Your task to perform on an android device: Add "lenovo thinkpad" to the cart on amazon, then select checkout. Image 0: 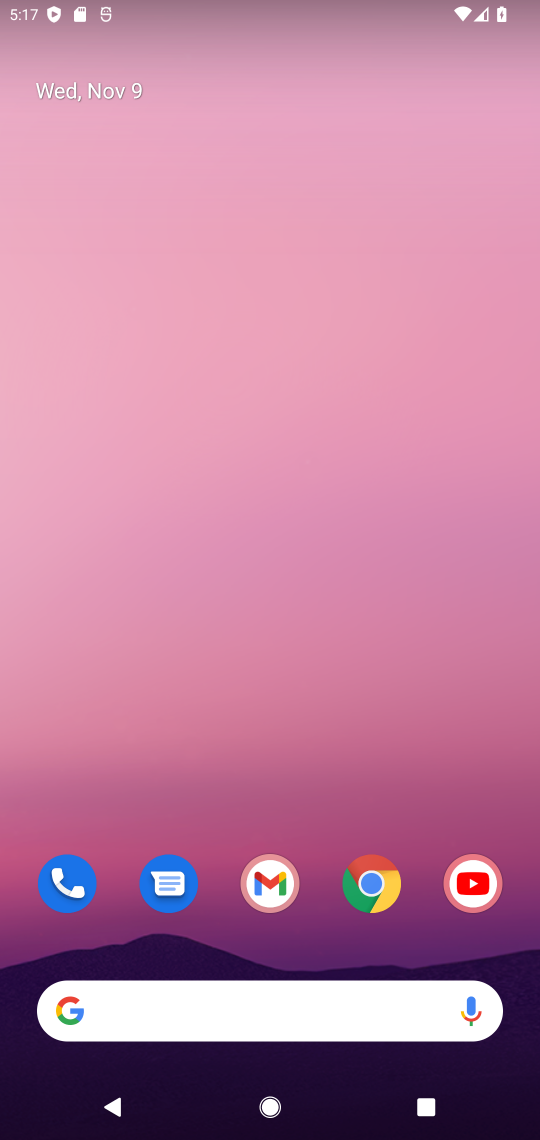
Step 0: click (370, 871)
Your task to perform on an android device: Add "lenovo thinkpad" to the cart on amazon, then select checkout. Image 1: 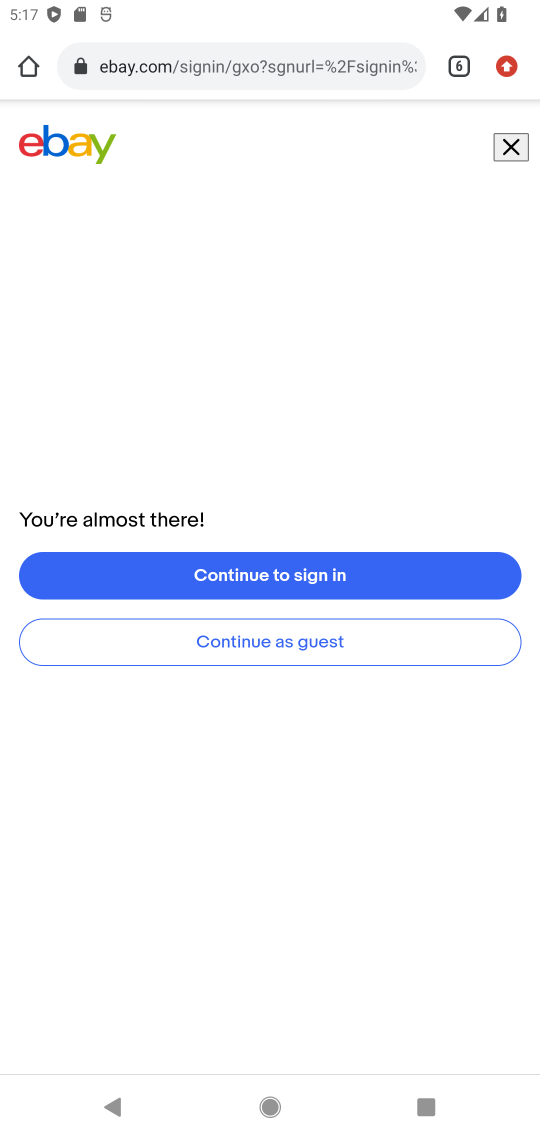
Step 1: click (456, 66)
Your task to perform on an android device: Add "lenovo thinkpad" to the cart on amazon, then select checkout. Image 2: 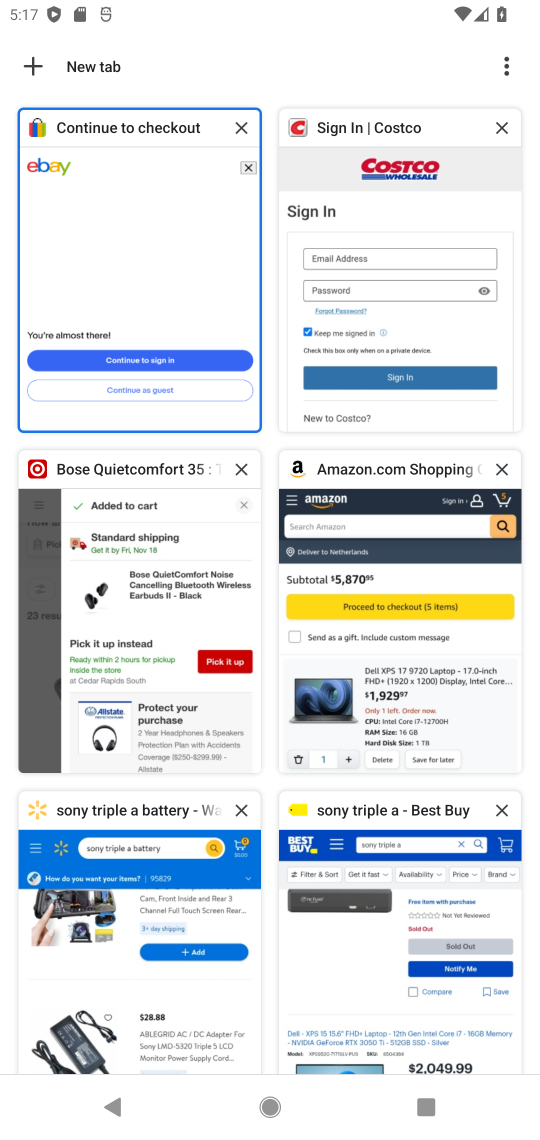
Step 2: click (420, 575)
Your task to perform on an android device: Add "lenovo thinkpad" to the cart on amazon, then select checkout. Image 3: 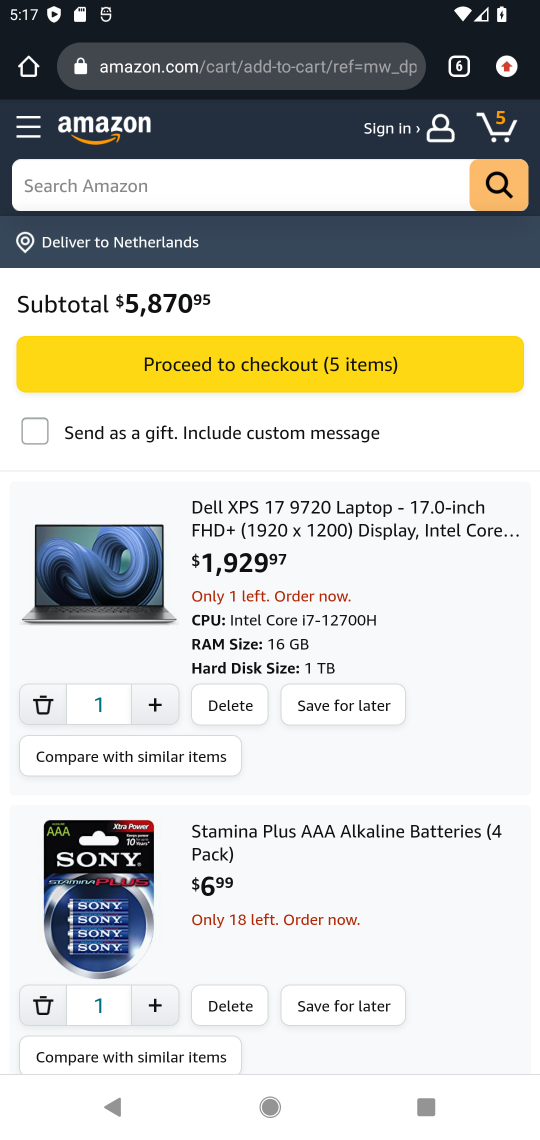
Step 3: click (120, 173)
Your task to perform on an android device: Add "lenovo thinkpad" to the cart on amazon, then select checkout. Image 4: 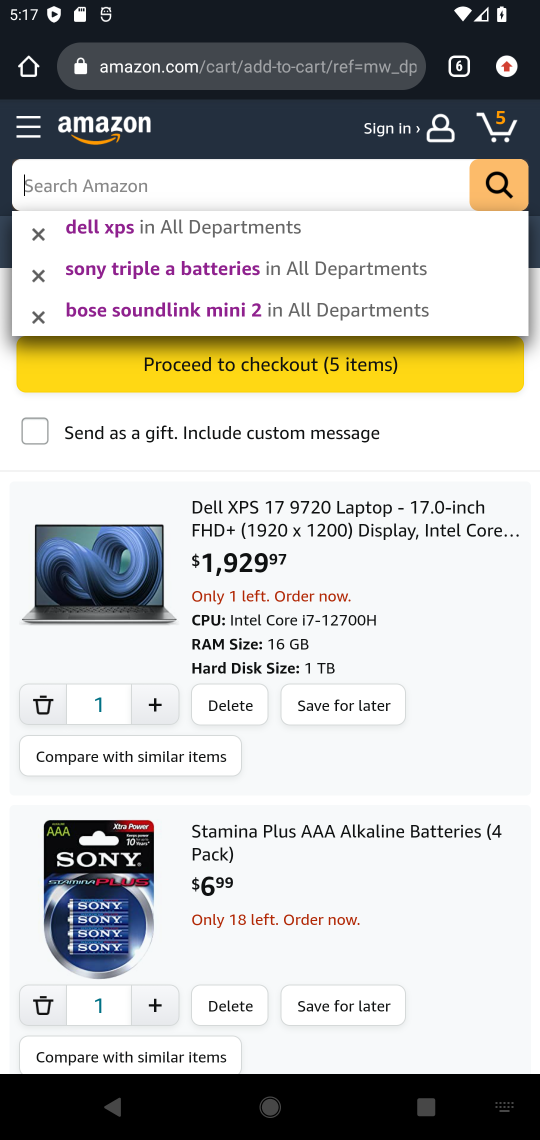
Step 4: type "lenovo thinkpad"
Your task to perform on an android device: Add "lenovo thinkpad" to the cart on amazon, then select checkout. Image 5: 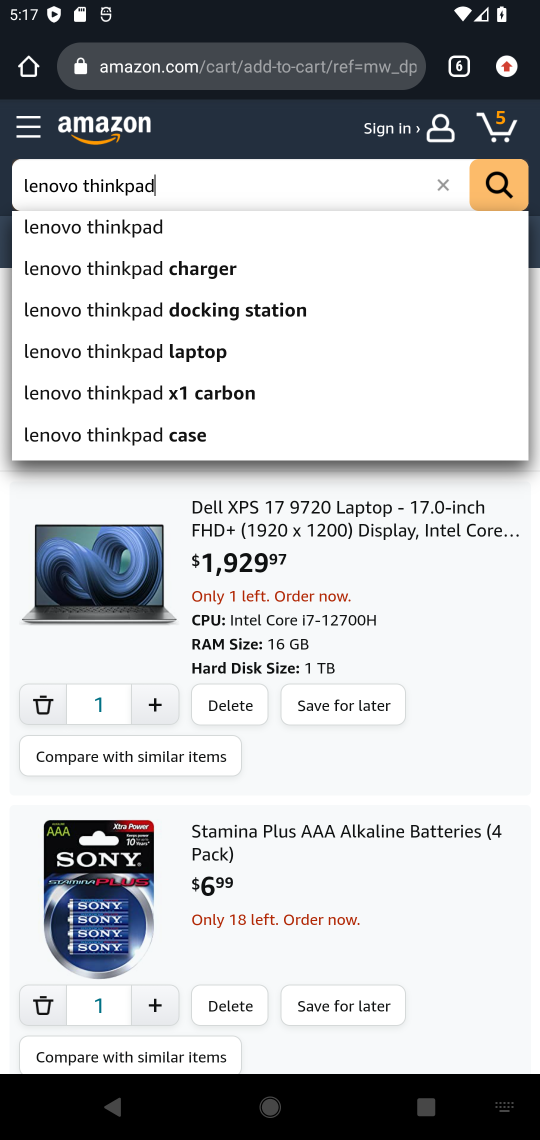
Step 5: click (110, 224)
Your task to perform on an android device: Add "lenovo thinkpad" to the cart on amazon, then select checkout. Image 6: 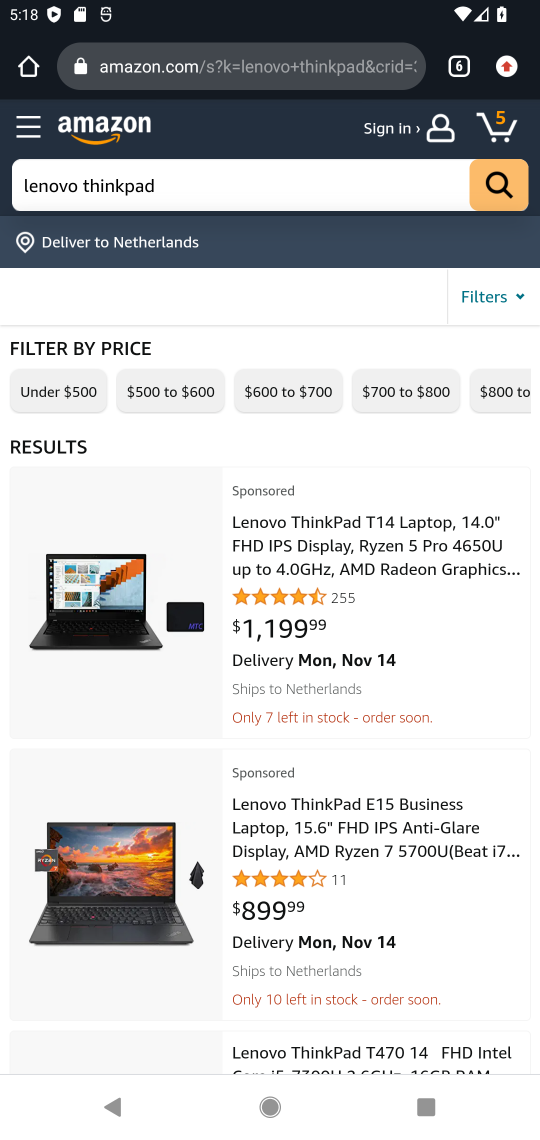
Step 6: click (245, 525)
Your task to perform on an android device: Add "lenovo thinkpad" to the cart on amazon, then select checkout. Image 7: 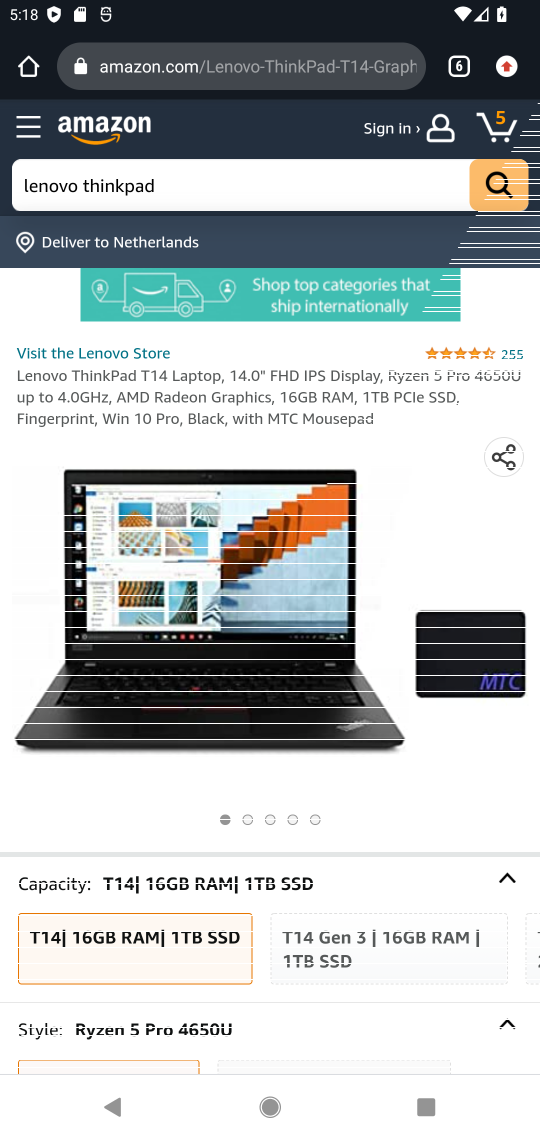
Step 7: drag from (196, 32) to (417, 25)
Your task to perform on an android device: Add "lenovo thinkpad" to the cart on amazon, then select checkout. Image 8: 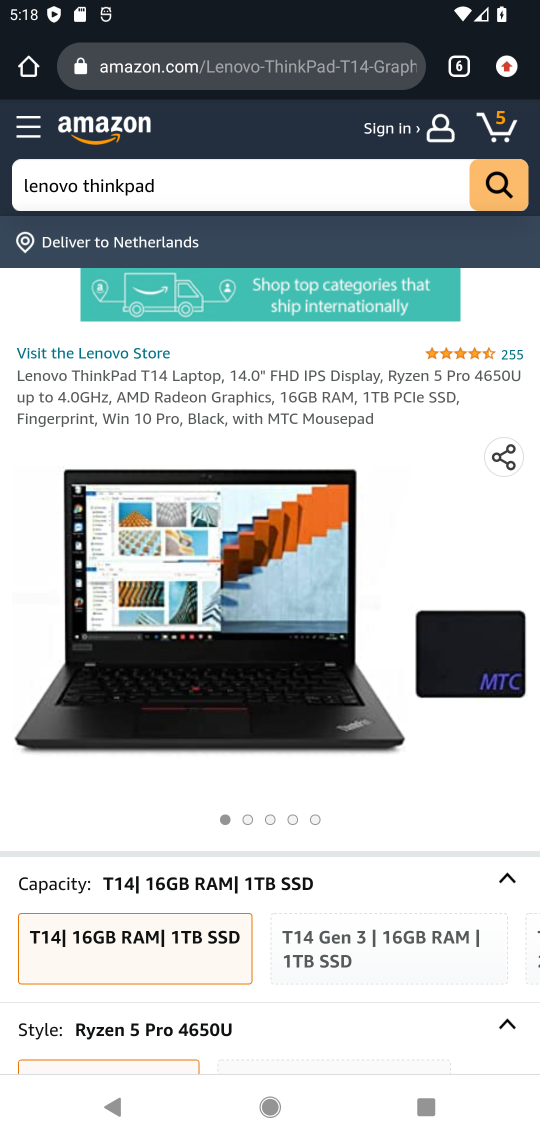
Step 8: drag from (374, 1000) to (485, 239)
Your task to perform on an android device: Add "lenovo thinkpad" to the cart on amazon, then select checkout. Image 9: 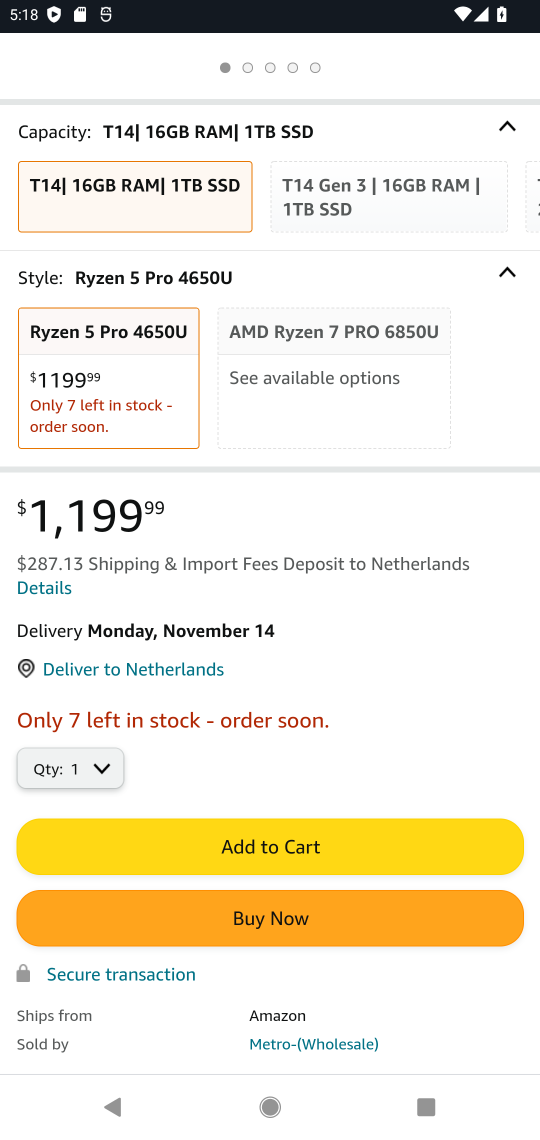
Step 9: click (280, 988)
Your task to perform on an android device: Add "lenovo thinkpad" to the cart on amazon, then select checkout. Image 10: 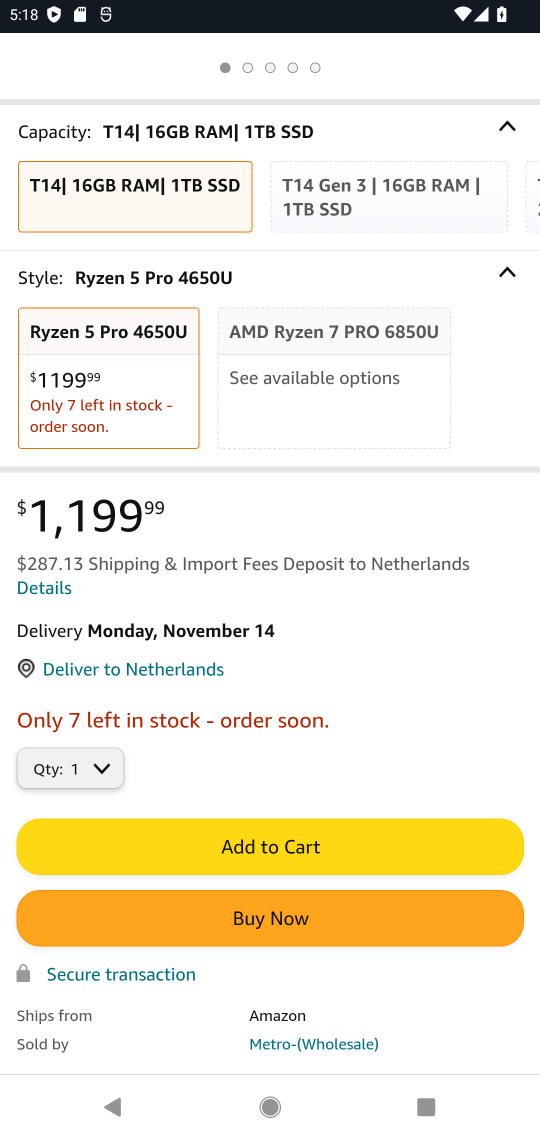
Step 10: click (310, 856)
Your task to perform on an android device: Add "lenovo thinkpad" to the cart on amazon, then select checkout. Image 11: 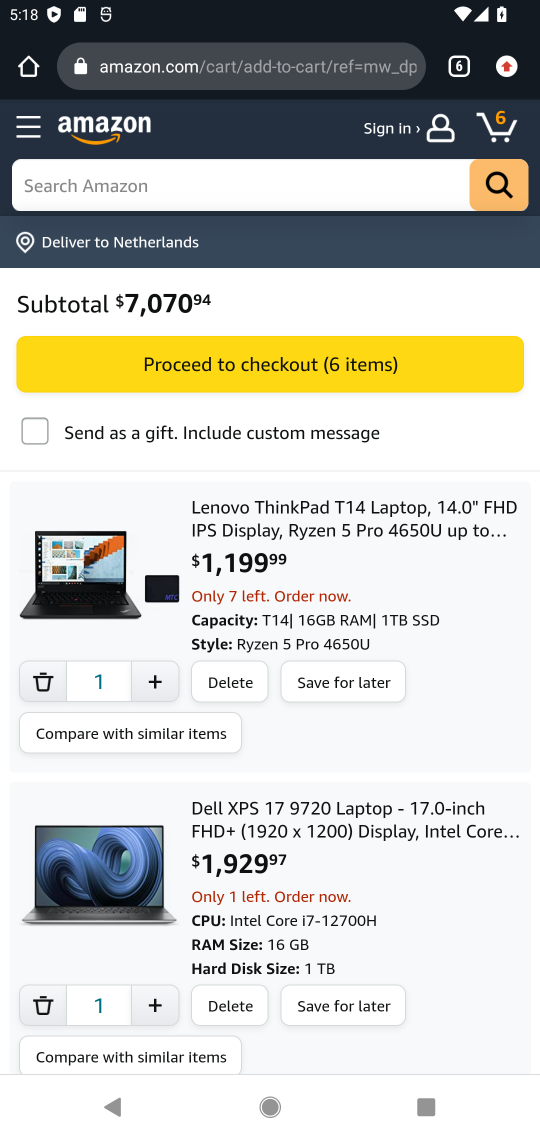
Step 11: click (200, 371)
Your task to perform on an android device: Add "lenovo thinkpad" to the cart on amazon, then select checkout. Image 12: 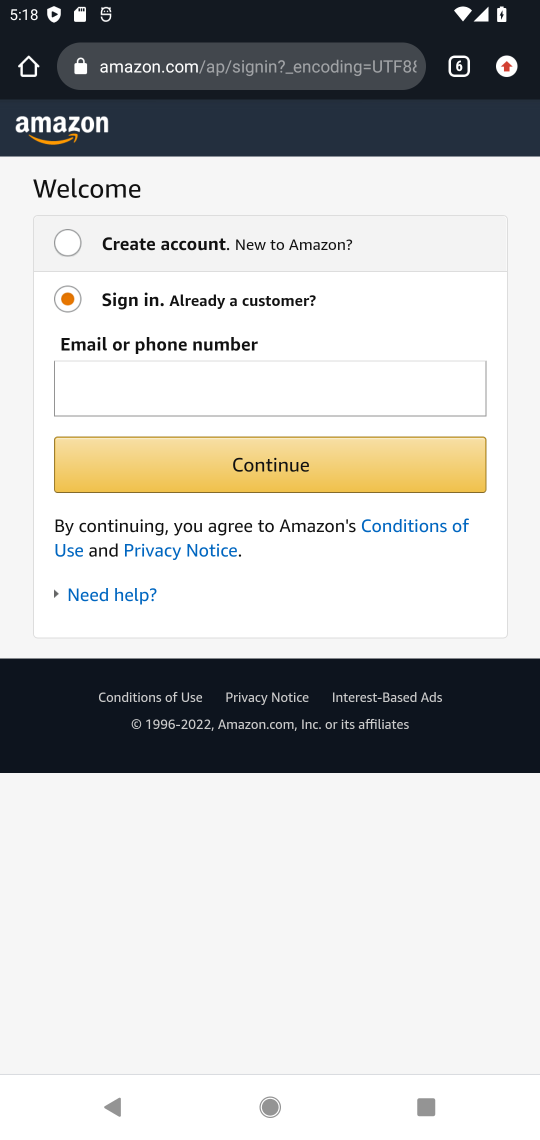
Step 12: task complete